Your task to perform on an android device: Go to display settings Image 0: 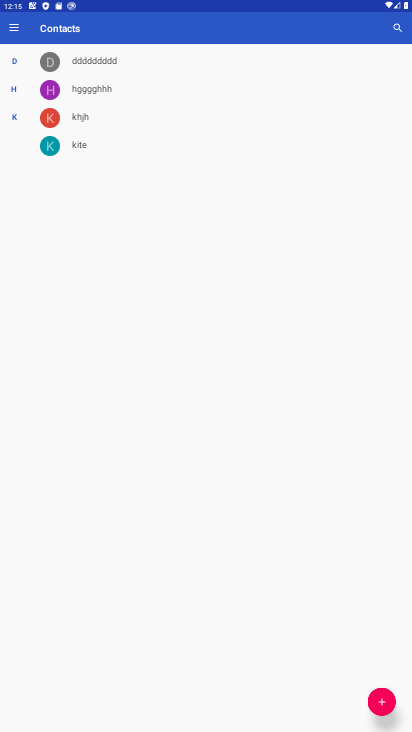
Step 0: press home button
Your task to perform on an android device: Go to display settings Image 1: 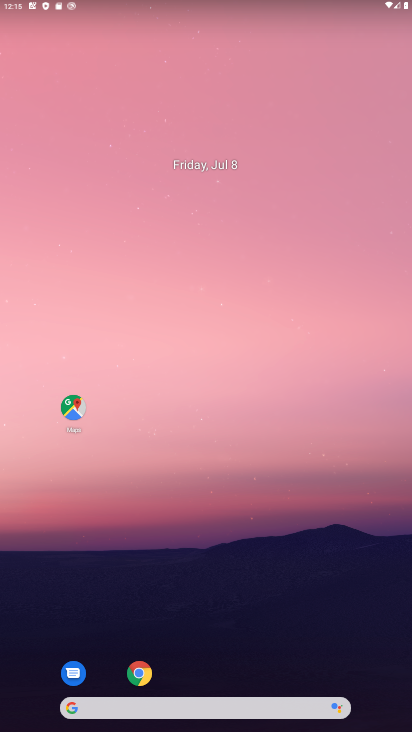
Step 1: drag from (238, 653) to (278, 81)
Your task to perform on an android device: Go to display settings Image 2: 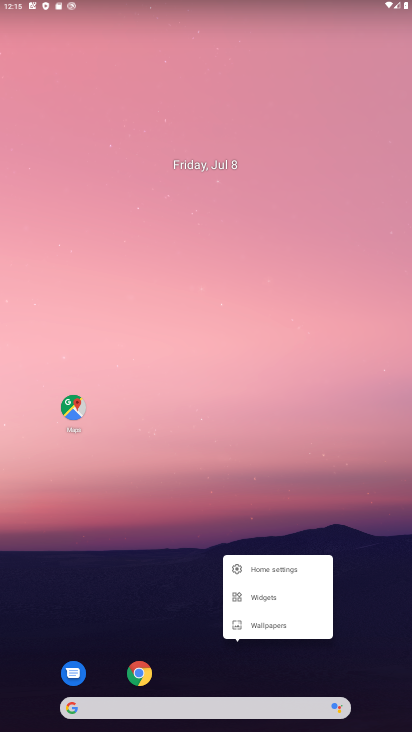
Step 2: drag from (207, 661) to (233, 53)
Your task to perform on an android device: Go to display settings Image 3: 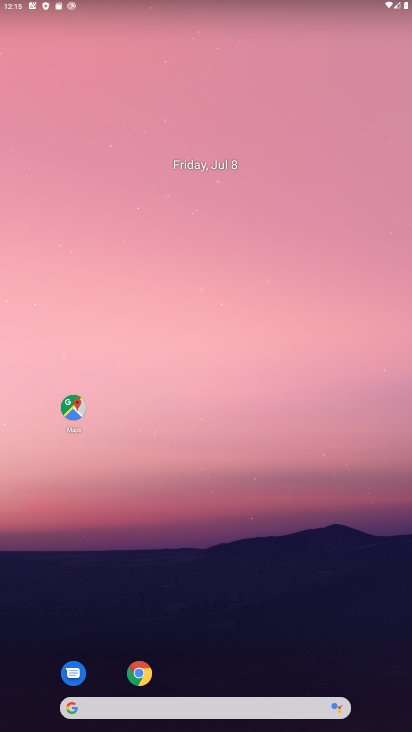
Step 3: drag from (208, 703) to (215, 42)
Your task to perform on an android device: Go to display settings Image 4: 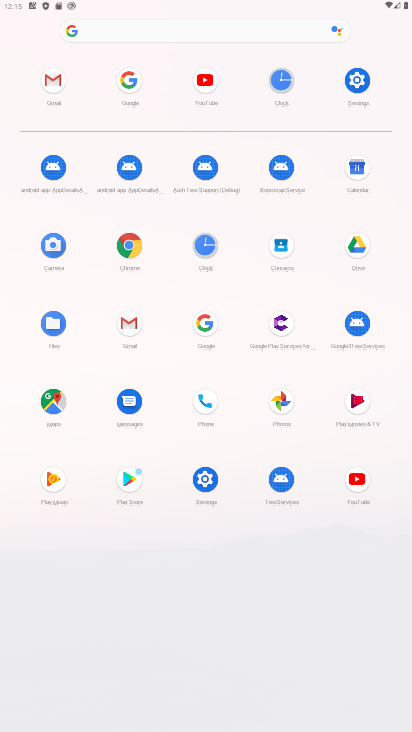
Step 4: click (359, 78)
Your task to perform on an android device: Go to display settings Image 5: 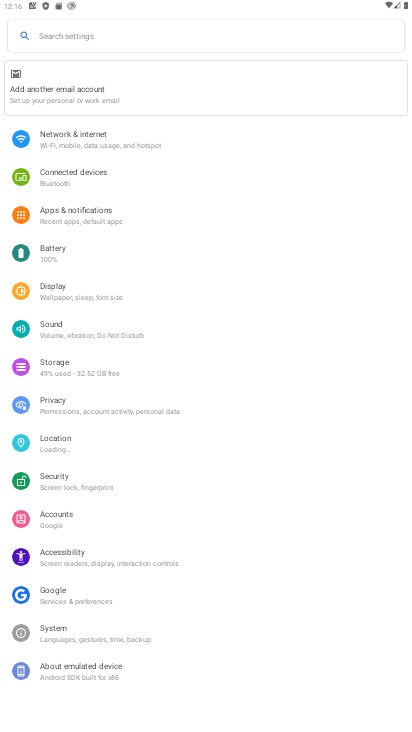
Step 5: click (77, 291)
Your task to perform on an android device: Go to display settings Image 6: 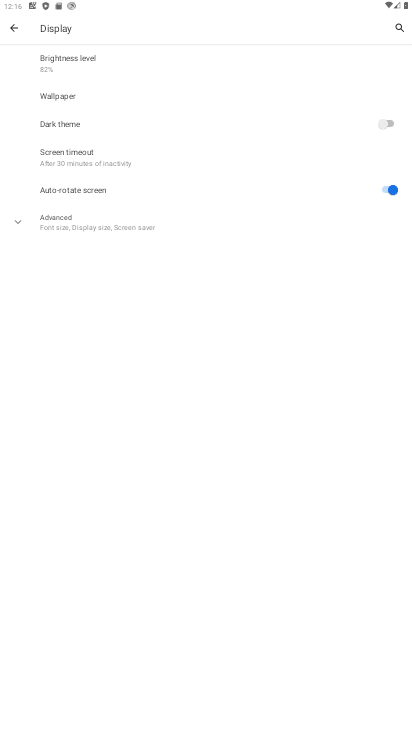
Step 6: task complete